Your task to perform on an android device: What's the weather? Image 0: 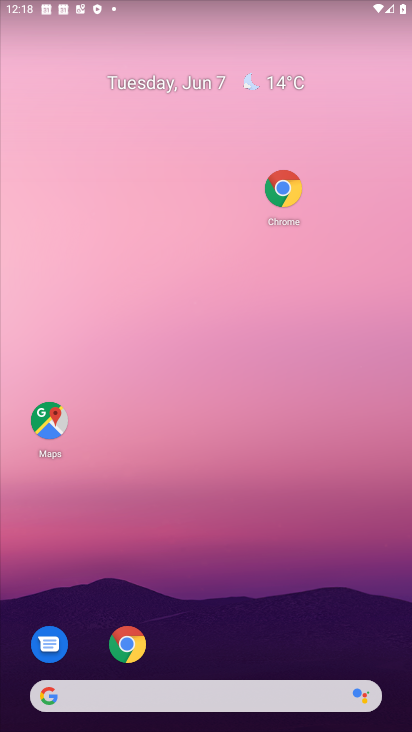
Step 0: click (283, 86)
Your task to perform on an android device: What's the weather? Image 1: 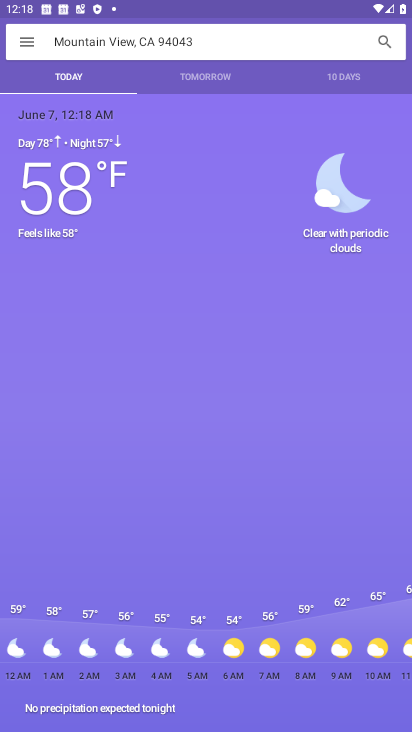
Step 1: task complete